Your task to perform on an android device: turn vacation reply on in the gmail app Image 0: 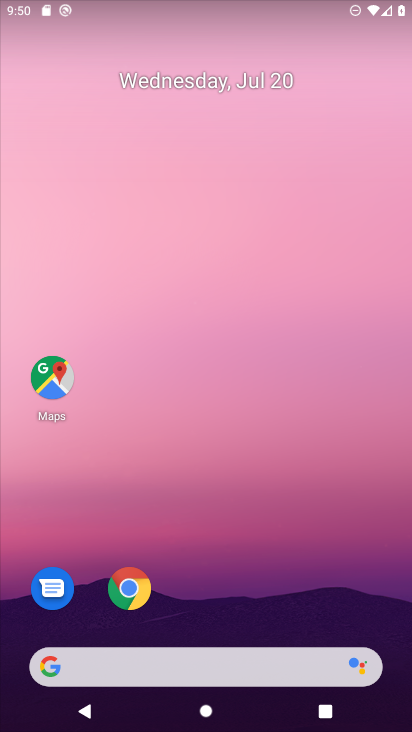
Step 0: press home button
Your task to perform on an android device: turn vacation reply on in the gmail app Image 1: 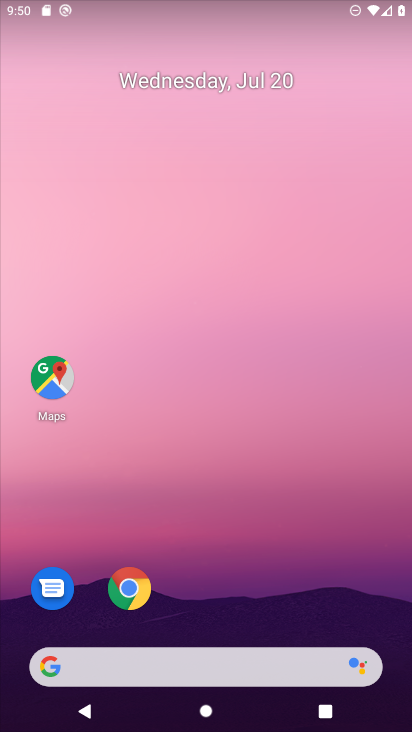
Step 1: click (234, 616)
Your task to perform on an android device: turn vacation reply on in the gmail app Image 2: 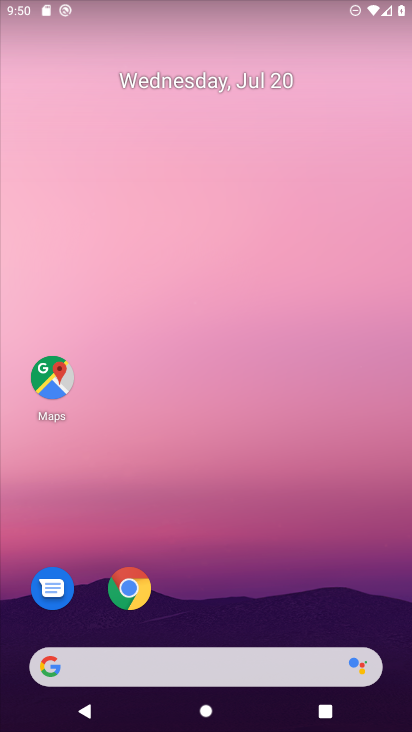
Step 2: drag from (259, 603) to (281, 105)
Your task to perform on an android device: turn vacation reply on in the gmail app Image 3: 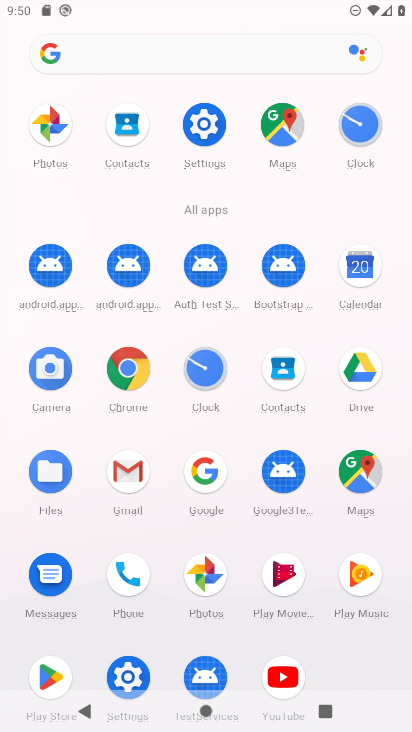
Step 3: click (137, 476)
Your task to perform on an android device: turn vacation reply on in the gmail app Image 4: 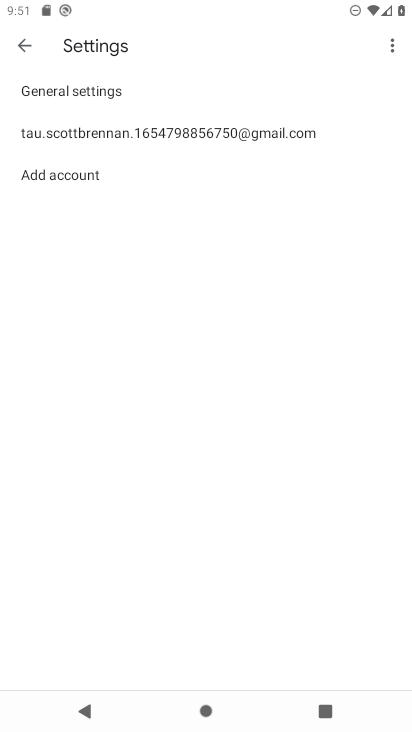
Step 4: click (84, 131)
Your task to perform on an android device: turn vacation reply on in the gmail app Image 5: 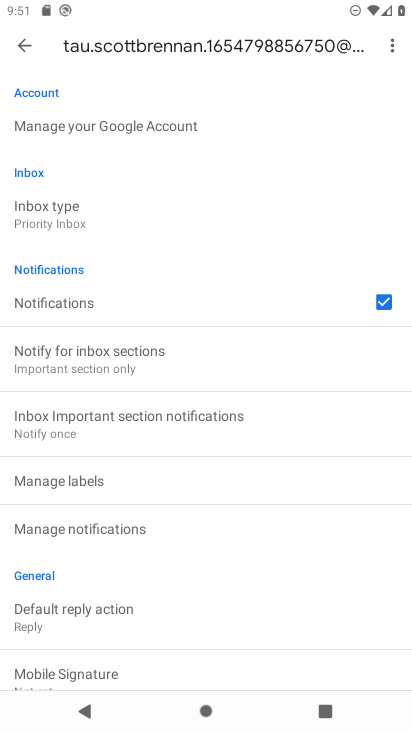
Step 5: drag from (158, 639) to (136, 172)
Your task to perform on an android device: turn vacation reply on in the gmail app Image 6: 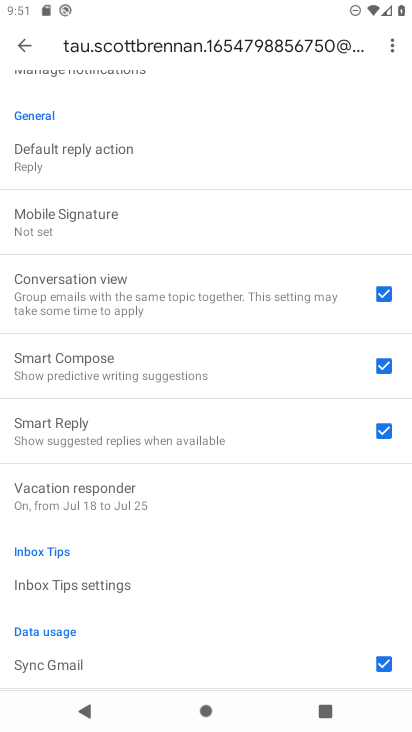
Step 6: click (242, 506)
Your task to perform on an android device: turn vacation reply on in the gmail app Image 7: 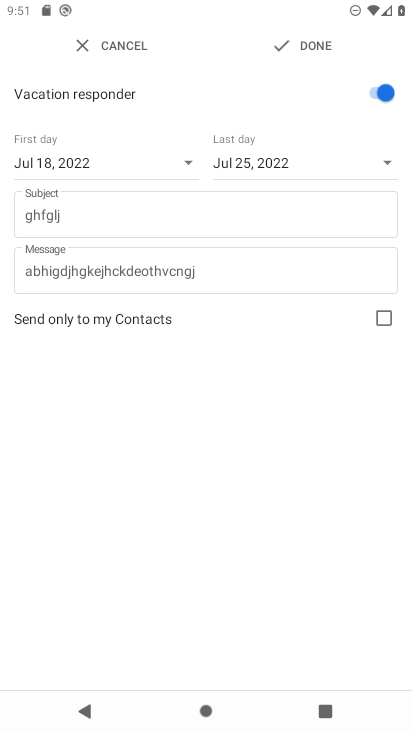
Step 7: click (318, 38)
Your task to perform on an android device: turn vacation reply on in the gmail app Image 8: 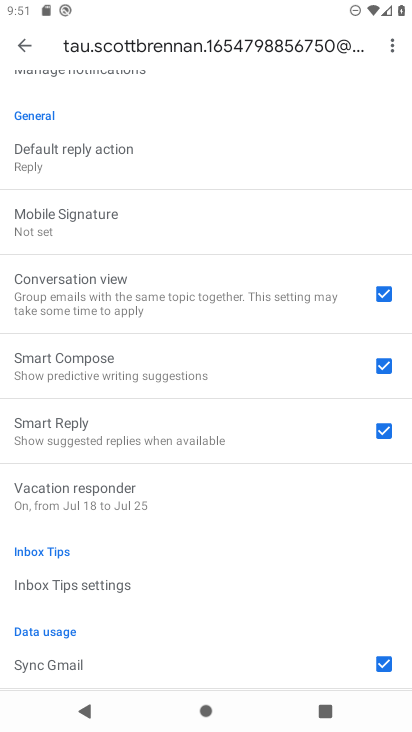
Step 8: task complete